Your task to perform on an android device: What's the weather going to be tomorrow? Image 0: 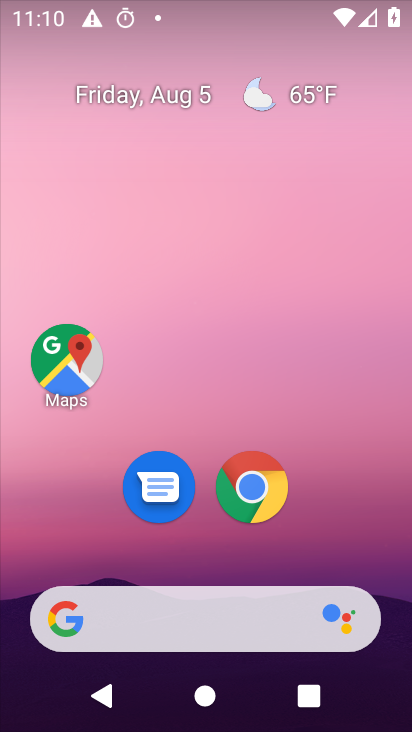
Step 0: click (172, 622)
Your task to perform on an android device: What's the weather going to be tomorrow? Image 1: 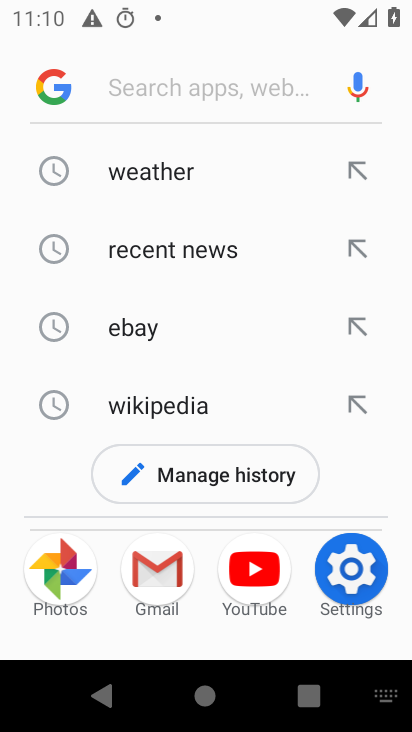
Step 1: click (157, 173)
Your task to perform on an android device: What's the weather going to be tomorrow? Image 2: 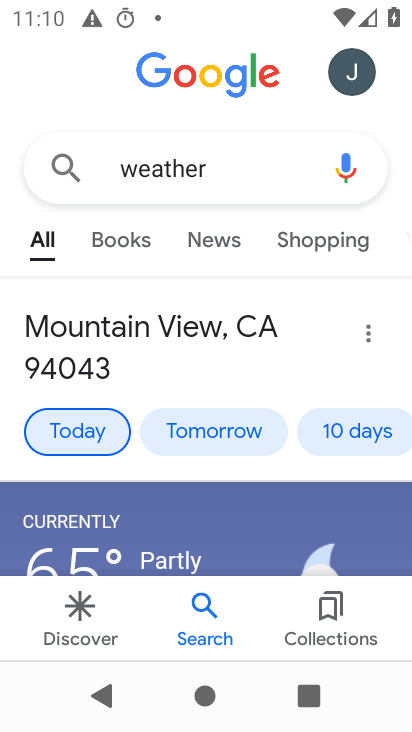
Step 2: click (200, 428)
Your task to perform on an android device: What's the weather going to be tomorrow? Image 3: 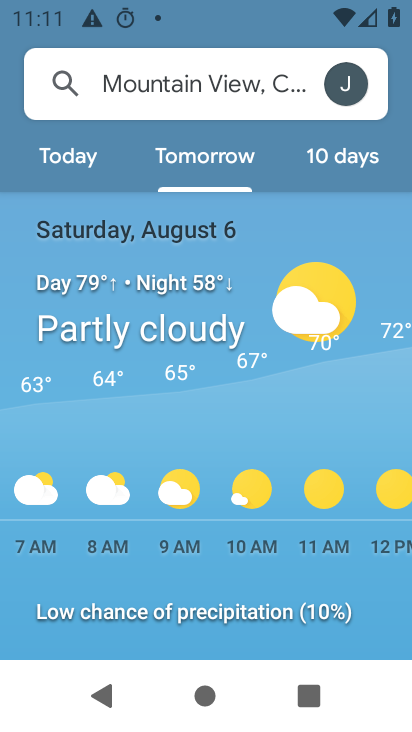
Step 3: task complete